Your task to perform on an android device: turn off sleep mode Image 0: 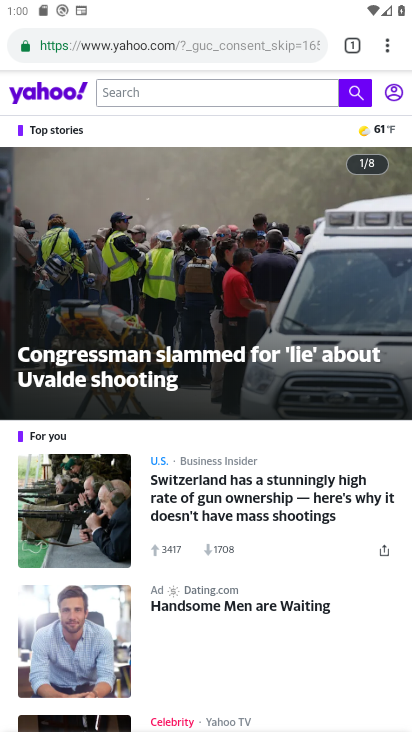
Step 0: press home button
Your task to perform on an android device: turn off sleep mode Image 1: 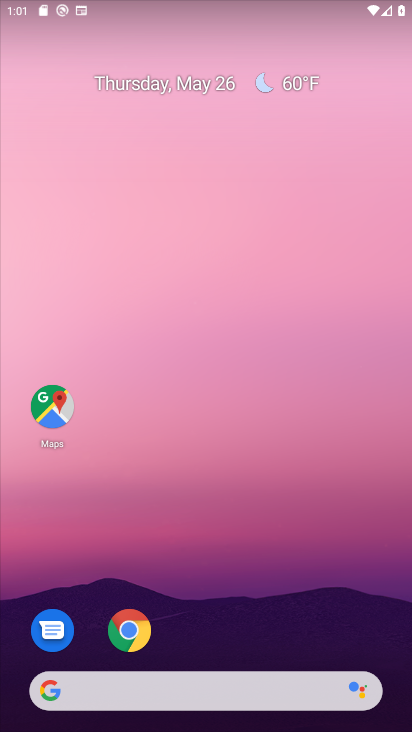
Step 1: drag from (274, 652) to (334, 195)
Your task to perform on an android device: turn off sleep mode Image 2: 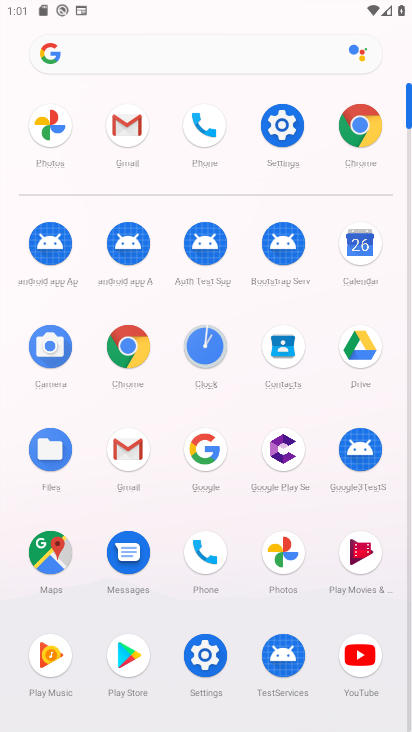
Step 2: click (275, 127)
Your task to perform on an android device: turn off sleep mode Image 3: 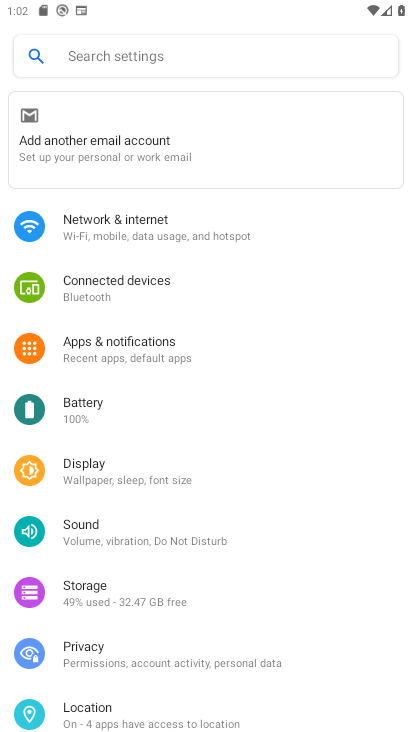
Step 3: click (99, 485)
Your task to perform on an android device: turn off sleep mode Image 4: 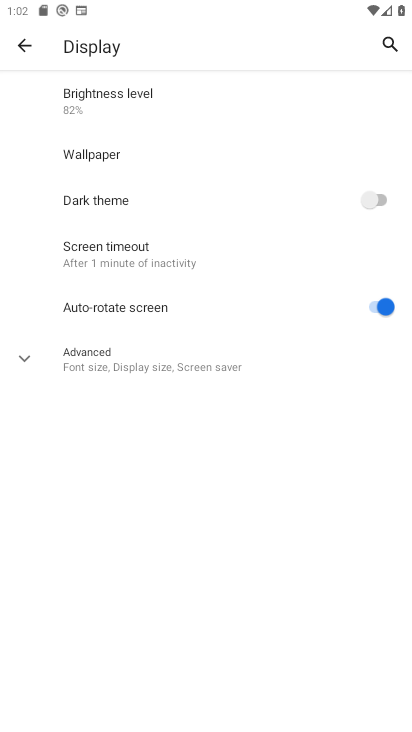
Step 4: click (113, 262)
Your task to perform on an android device: turn off sleep mode Image 5: 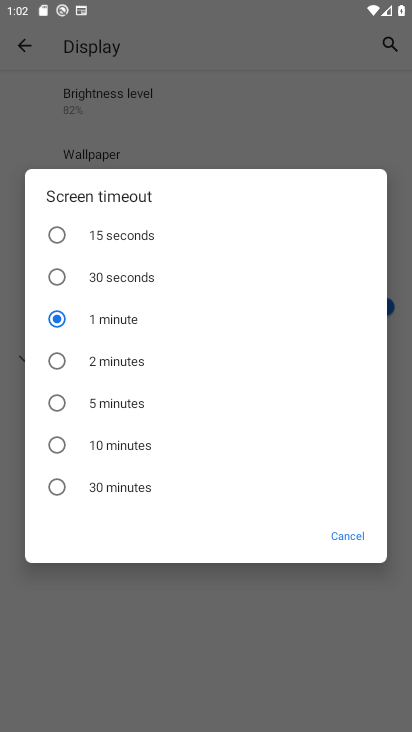
Step 5: task complete